Your task to perform on an android device: Open Google Chrome and click the shortcut for Amazon.com Image 0: 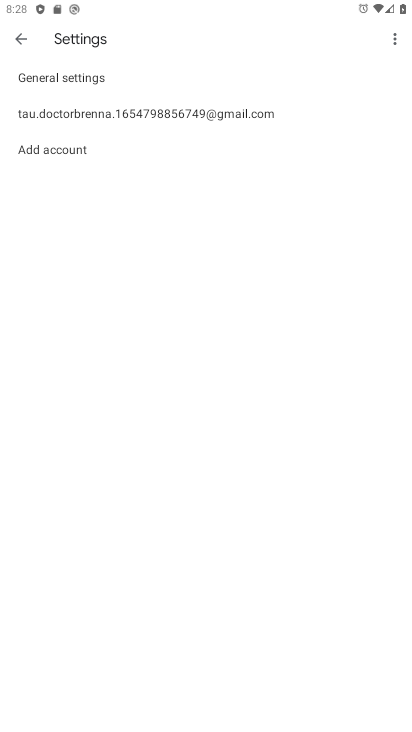
Step 0: press home button
Your task to perform on an android device: Open Google Chrome and click the shortcut for Amazon.com Image 1: 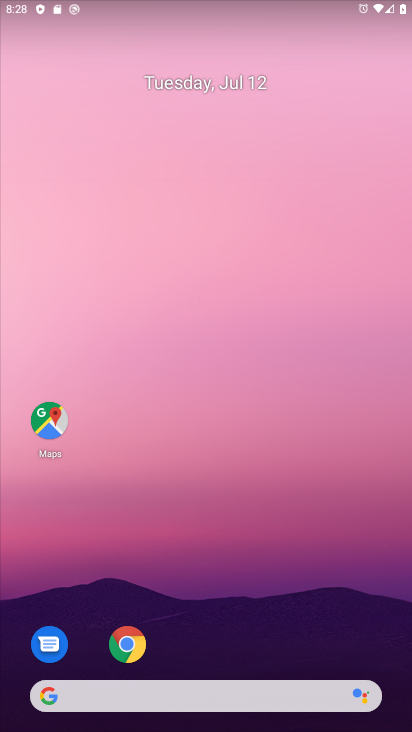
Step 1: click (71, 705)
Your task to perform on an android device: Open Google Chrome and click the shortcut for Amazon.com Image 2: 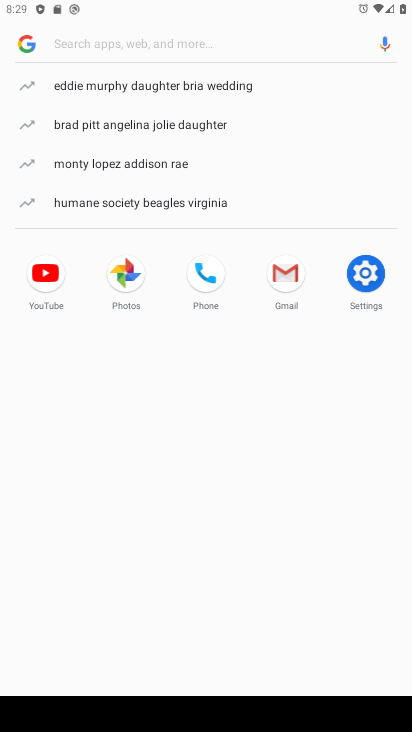
Step 2: press home button
Your task to perform on an android device: Open Google Chrome and click the shortcut for Amazon.com Image 3: 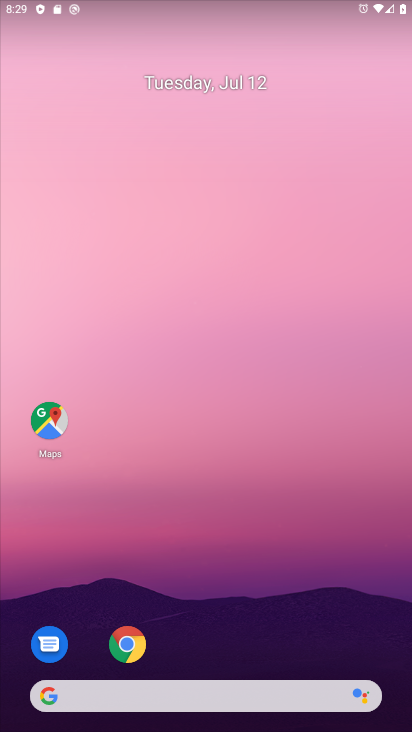
Step 3: click (116, 636)
Your task to perform on an android device: Open Google Chrome and click the shortcut for Amazon.com Image 4: 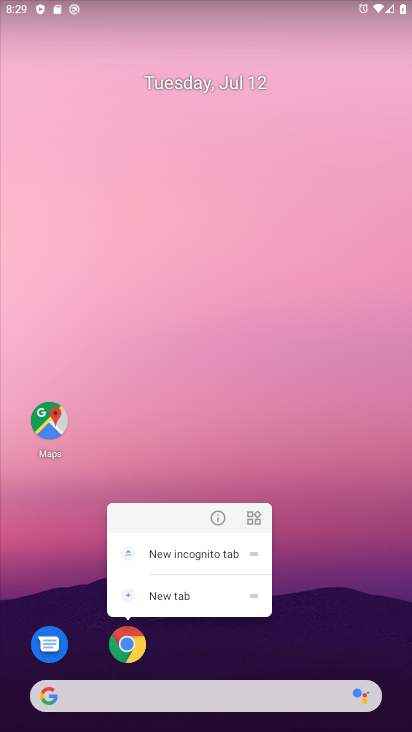
Step 4: click (126, 646)
Your task to perform on an android device: Open Google Chrome and click the shortcut for Amazon.com Image 5: 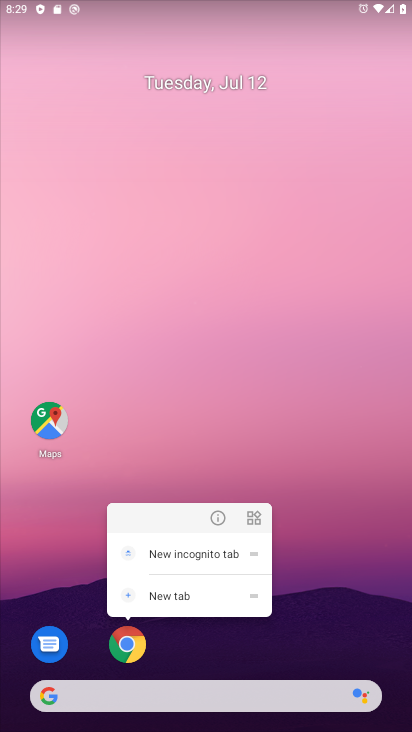
Step 5: task complete